Your task to perform on an android device: open a bookmark in the chrome app Image 0: 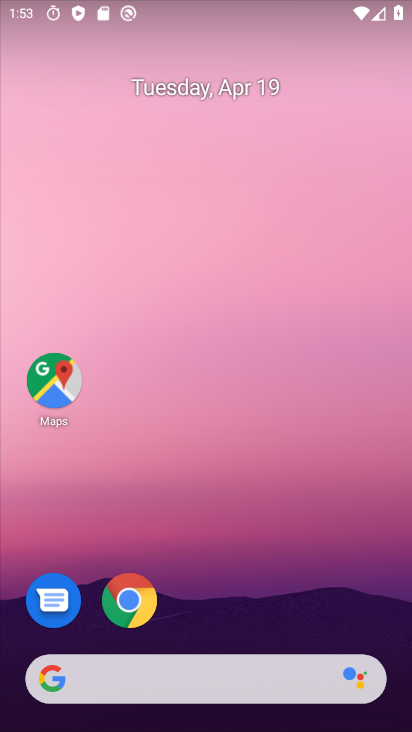
Step 0: drag from (275, 710) to (354, 263)
Your task to perform on an android device: open a bookmark in the chrome app Image 1: 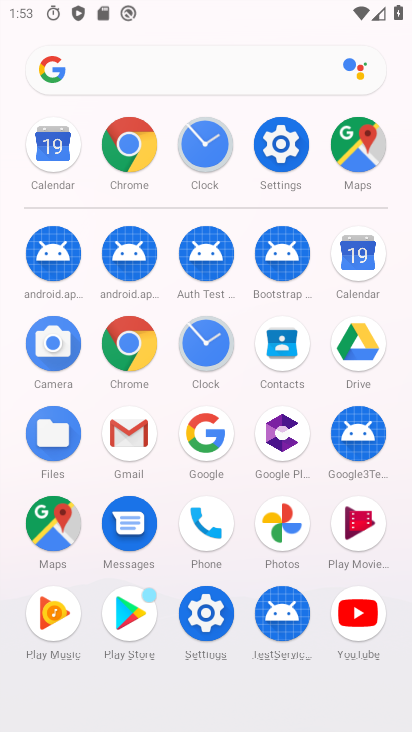
Step 1: click (132, 134)
Your task to perform on an android device: open a bookmark in the chrome app Image 2: 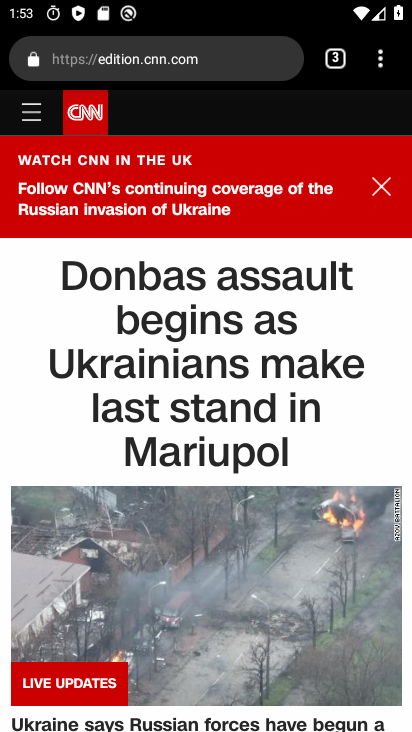
Step 2: click (384, 73)
Your task to perform on an android device: open a bookmark in the chrome app Image 3: 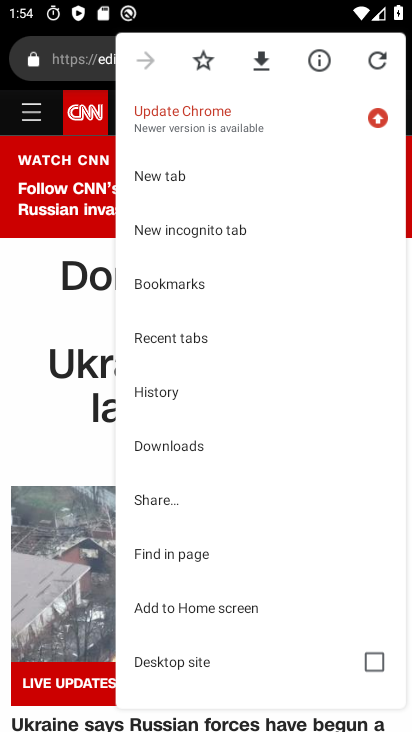
Step 3: click (182, 288)
Your task to perform on an android device: open a bookmark in the chrome app Image 4: 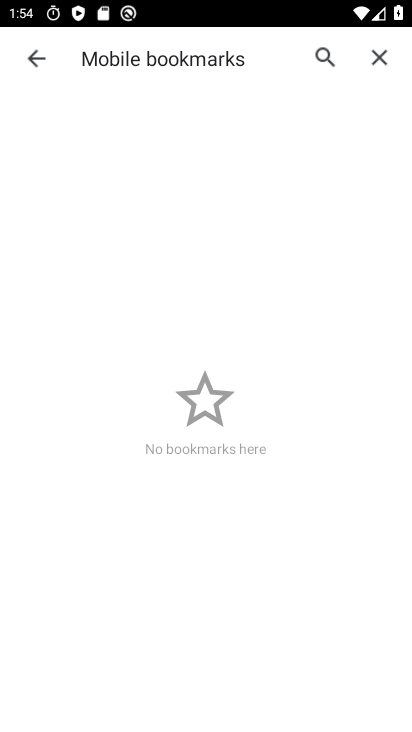
Step 4: task complete